Your task to perform on an android device: allow cookies in the chrome app Image 0: 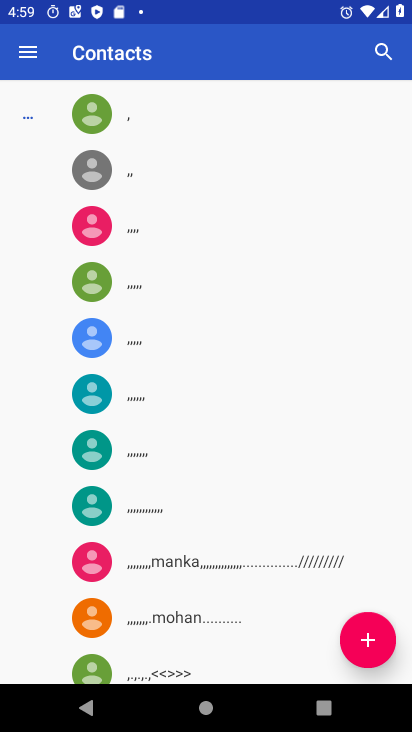
Step 0: press home button
Your task to perform on an android device: allow cookies in the chrome app Image 1: 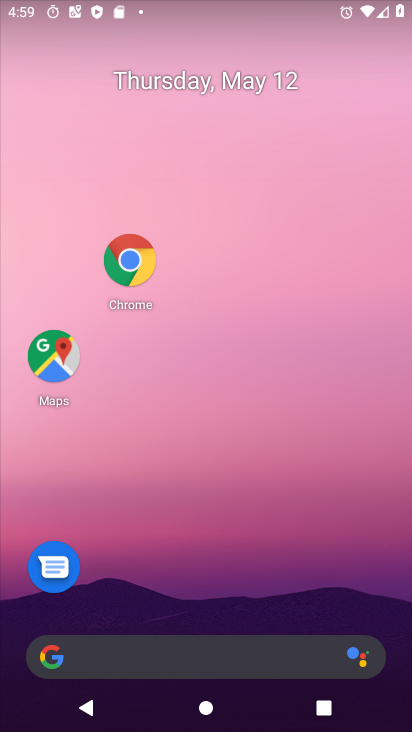
Step 1: drag from (138, 630) to (146, 86)
Your task to perform on an android device: allow cookies in the chrome app Image 2: 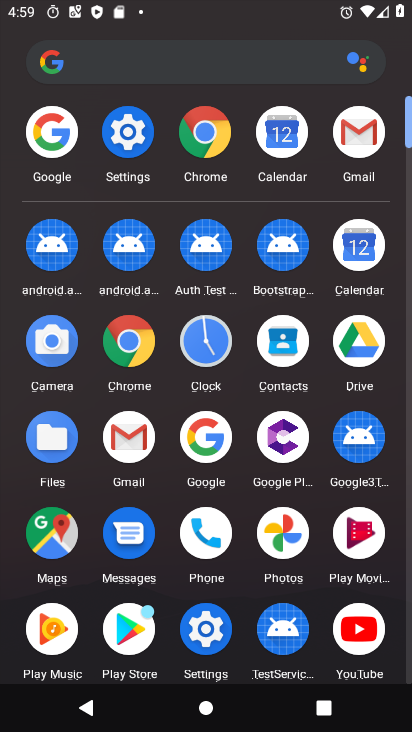
Step 2: click (200, 133)
Your task to perform on an android device: allow cookies in the chrome app Image 3: 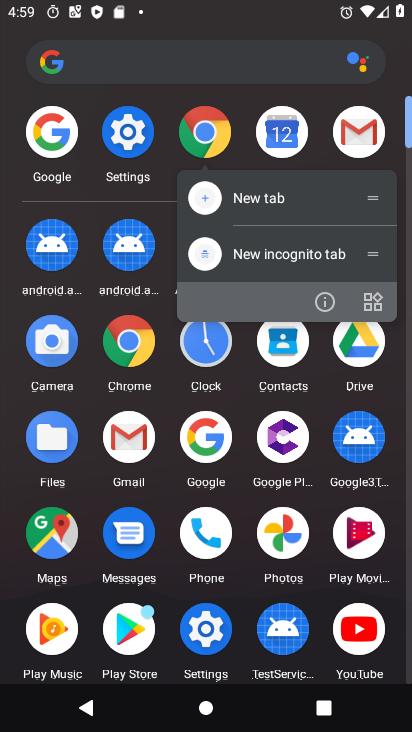
Step 3: click (206, 135)
Your task to perform on an android device: allow cookies in the chrome app Image 4: 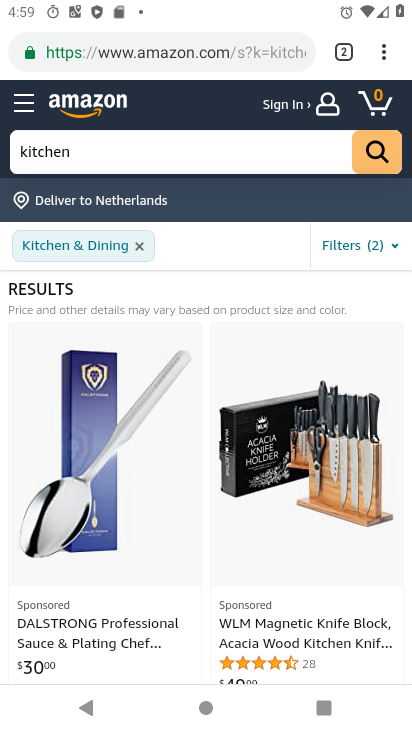
Step 4: click (379, 51)
Your task to perform on an android device: allow cookies in the chrome app Image 5: 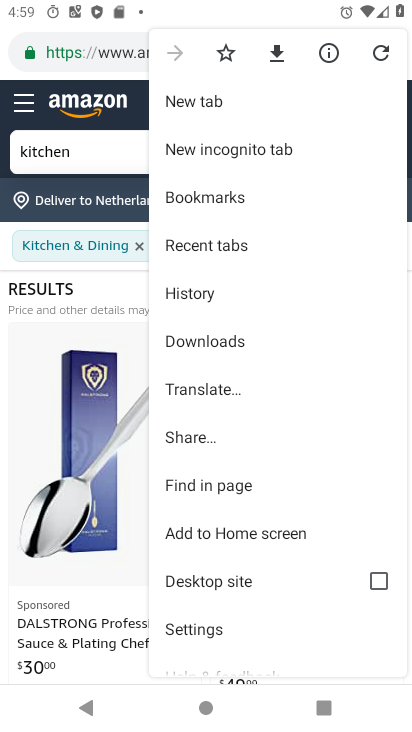
Step 5: drag from (205, 623) to (240, 329)
Your task to perform on an android device: allow cookies in the chrome app Image 6: 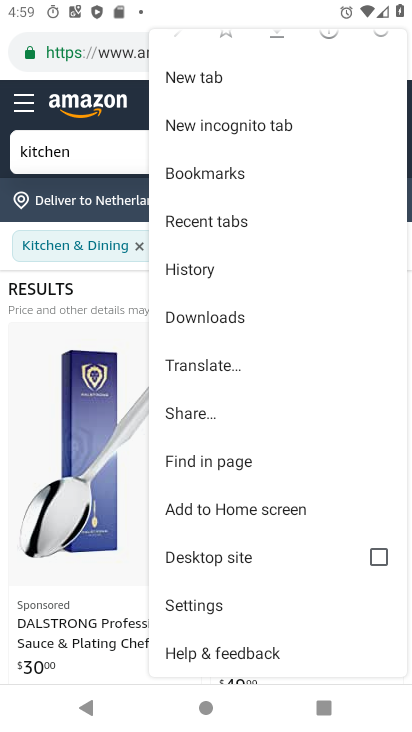
Step 6: click (197, 605)
Your task to perform on an android device: allow cookies in the chrome app Image 7: 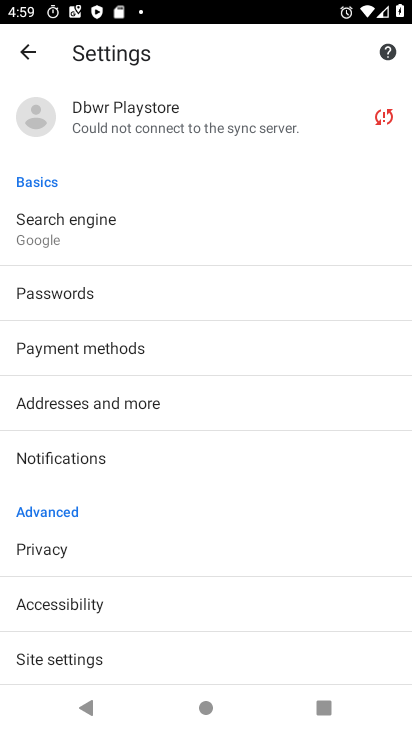
Step 7: click (83, 657)
Your task to perform on an android device: allow cookies in the chrome app Image 8: 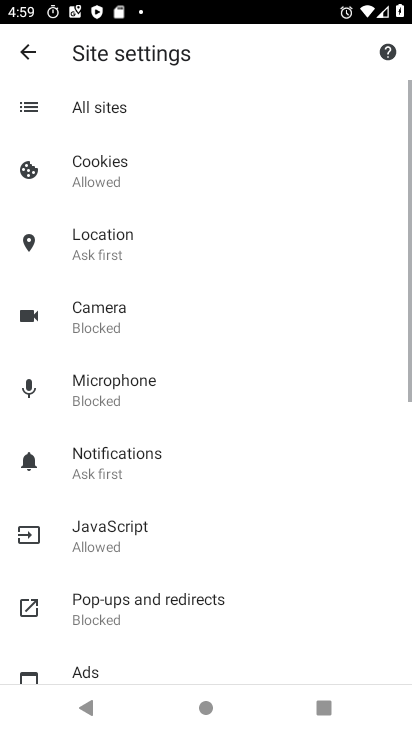
Step 8: click (98, 181)
Your task to perform on an android device: allow cookies in the chrome app Image 9: 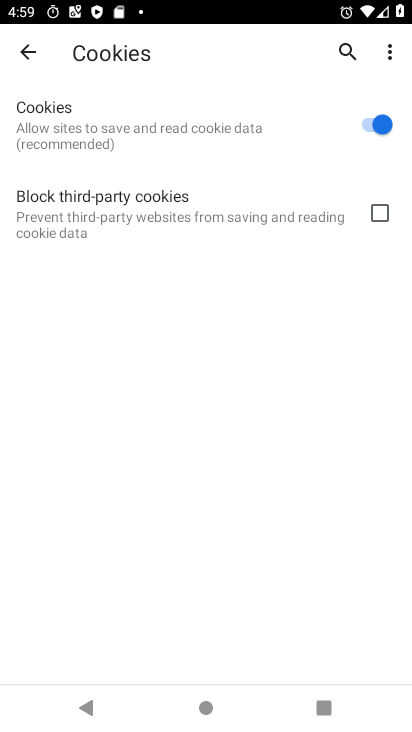
Step 9: task complete